Your task to perform on an android device: check battery use Image 0: 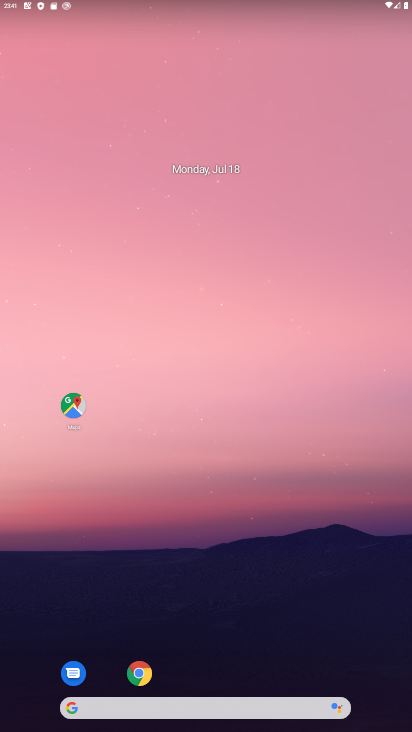
Step 0: drag from (210, 625) to (213, 164)
Your task to perform on an android device: check battery use Image 1: 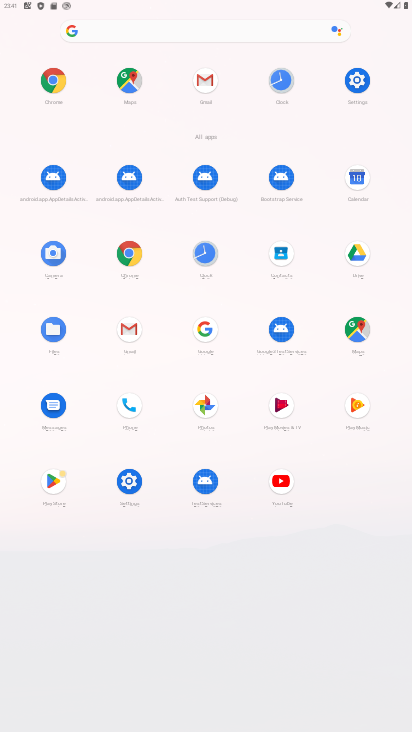
Step 1: click (356, 75)
Your task to perform on an android device: check battery use Image 2: 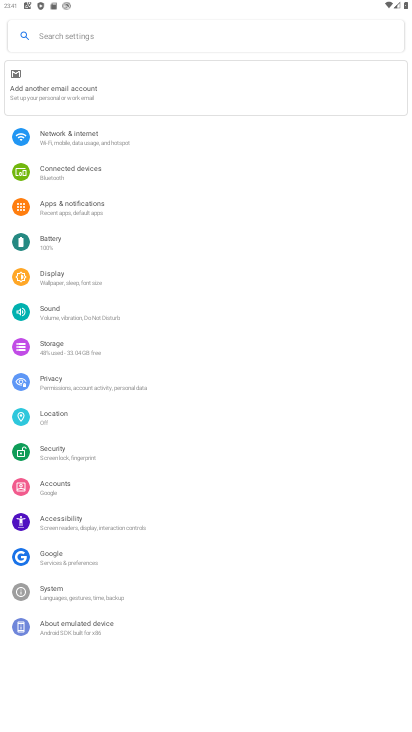
Step 2: click (70, 246)
Your task to perform on an android device: check battery use Image 3: 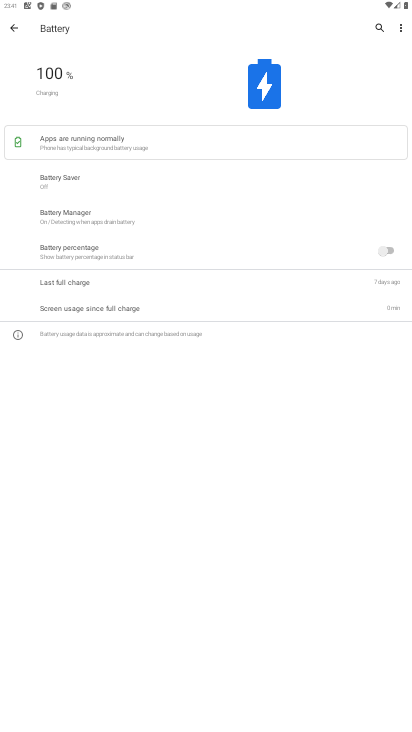
Step 3: task complete